Your task to perform on an android device: add a contact in the contacts app Image 0: 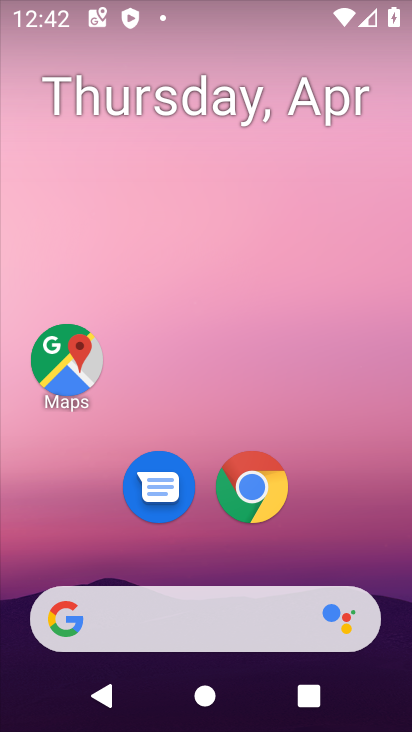
Step 0: drag from (306, 547) to (359, 11)
Your task to perform on an android device: add a contact in the contacts app Image 1: 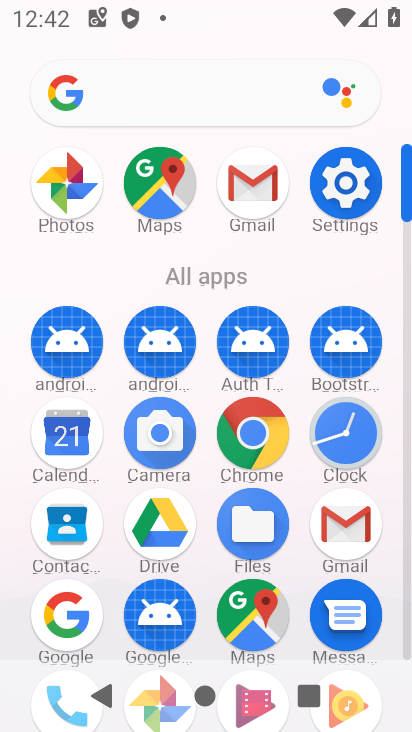
Step 1: click (74, 525)
Your task to perform on an android device: add a contact in the contacts app Image 2: 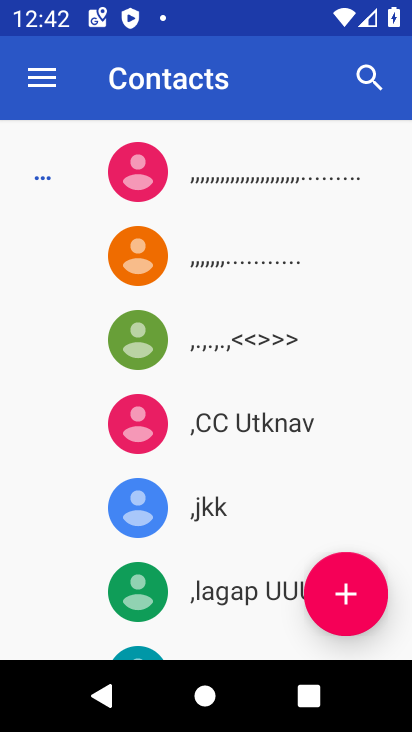
Step 2: click (330, 591)
Your task to perform on an android device: add a contact in the contacts app Image 3: 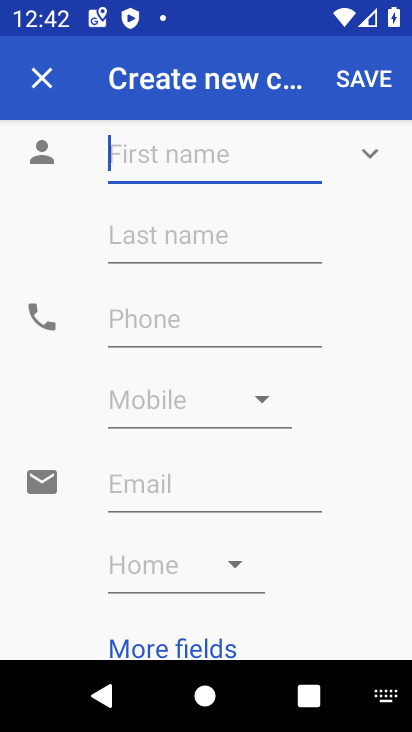
Step 3: type "sdfvbnuio"
Your task to perform on an android device: add a contact in the contacts app Image 4: 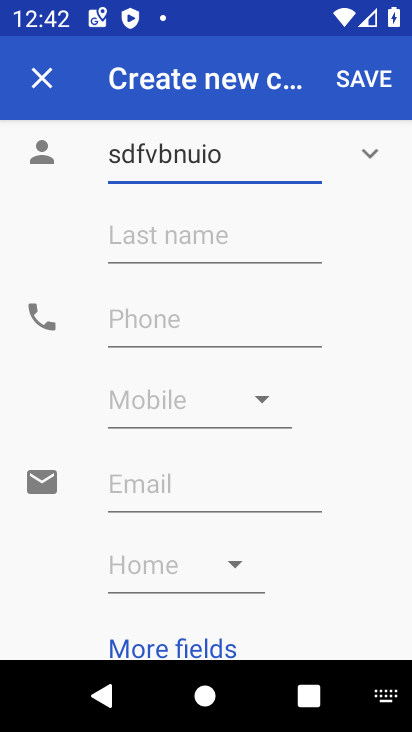
Step 4: click (145, 326)
Your task to perform on an android device: add a contact in the contacts app Image 5: 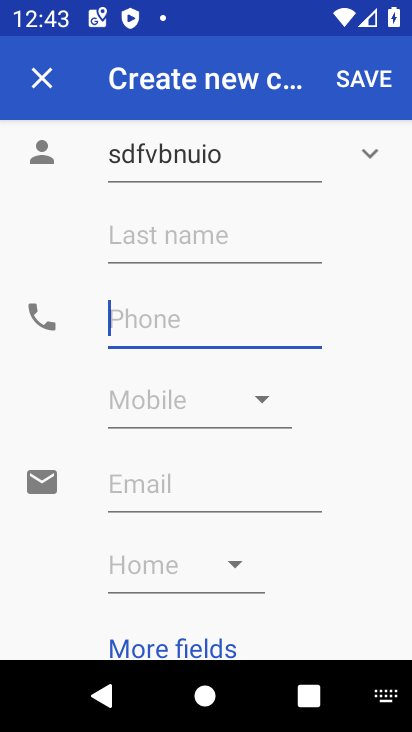
Step 5: type "2314454454"
Your task to perform on an android device: add a contact in the contacts app Image 6: 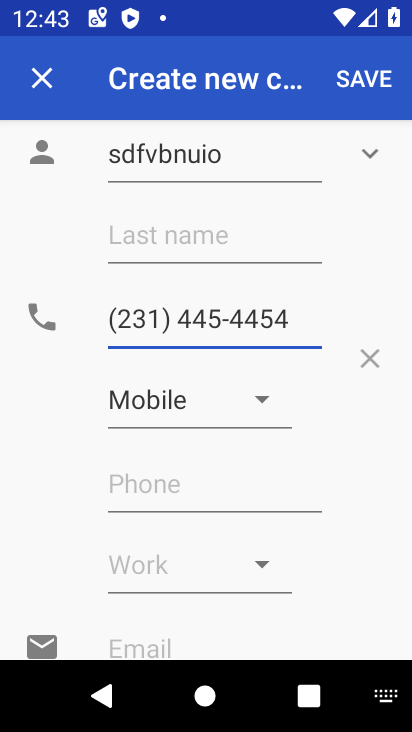
Step 6: click (344, 83)
Your task to perform on an android device: add a contact in the contacts app Image 7: 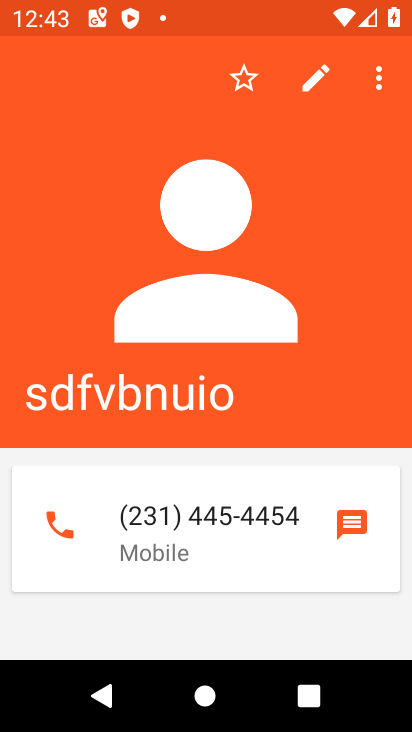
Step 7: task complete